Your task to perform on an android device: Search for Mexican restaurants on Maps Image 0: 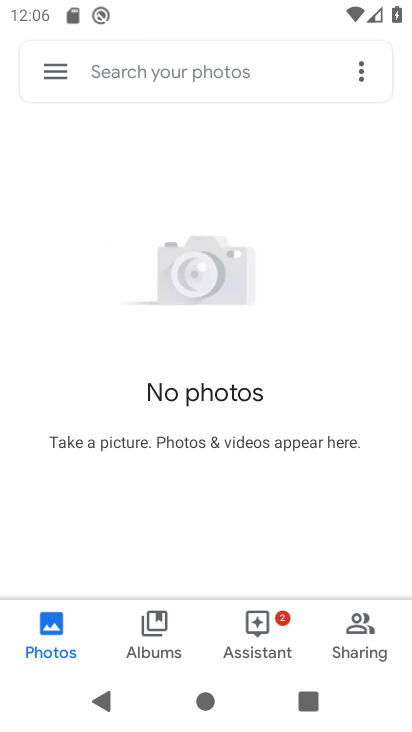
Step 0: press home button
Your task to perform on an android device: Search for Mexican restaurants on Maps Image 1: 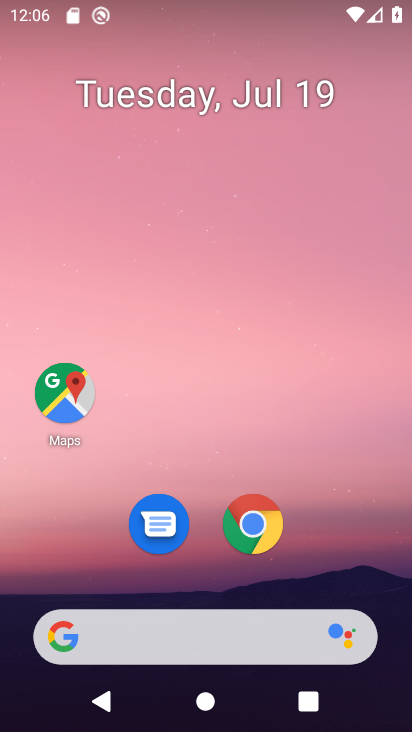
Step 1: click (53, 388)
Your task to perform on an android device: Search for Mexican restaurants on Maps Image 2: 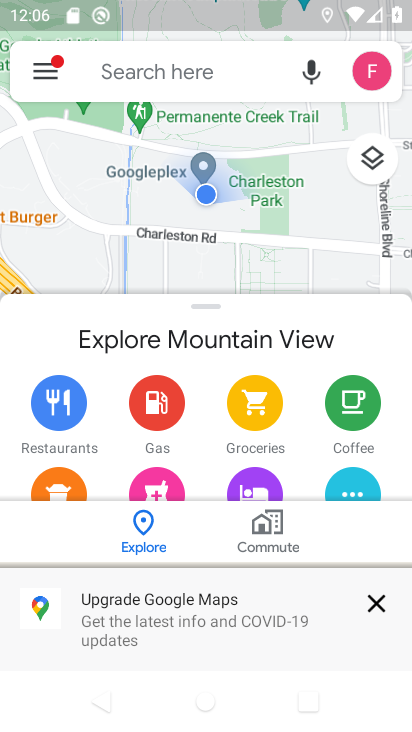
Step 2: click (167, 73)
Your task to perform on an android device: Search for Mexican restaurants on Maps Image 3: 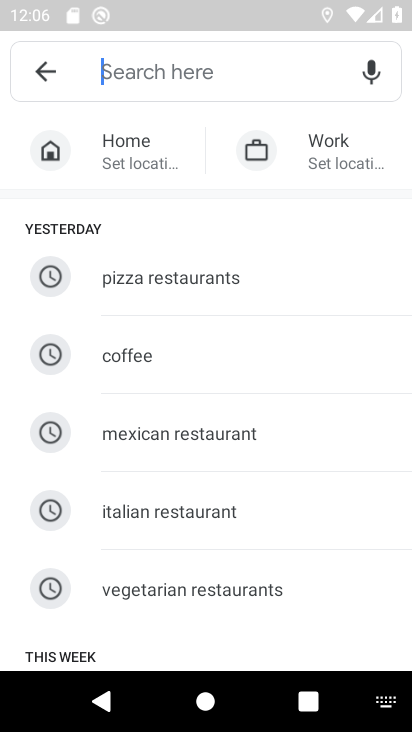
Step 3: click (205, 435)
Your task to perform on an android device: Search for Mexican restaurants on Maps Image 4: 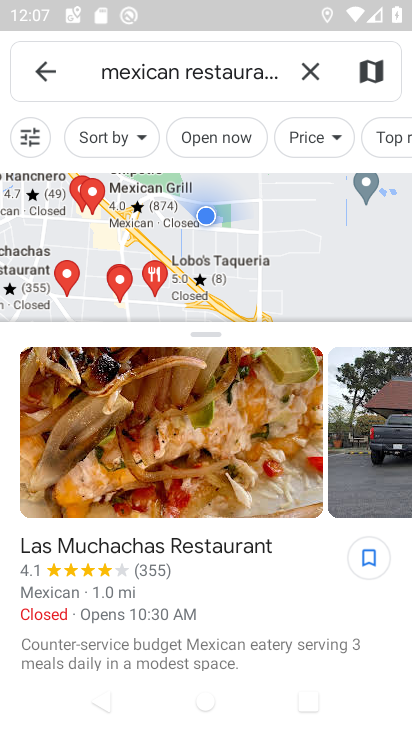
Step 4: task complete